Your task to perform on an android device: turn off airplane mode Image 0: 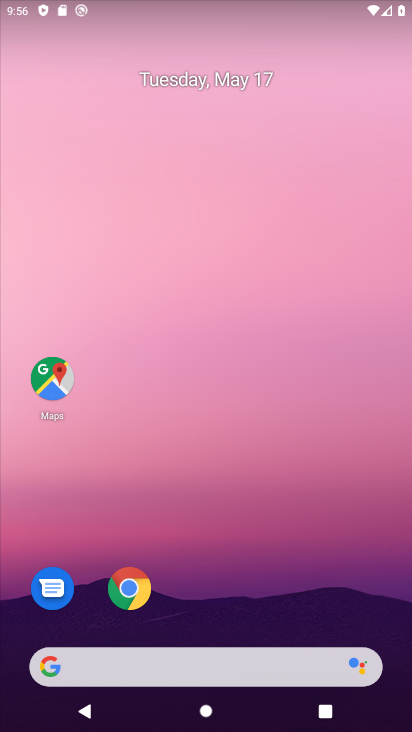
Step 0: drag from (225, 730) to (226, 120)
Your task to perform on an android device: turn off airplane mode Image 1: 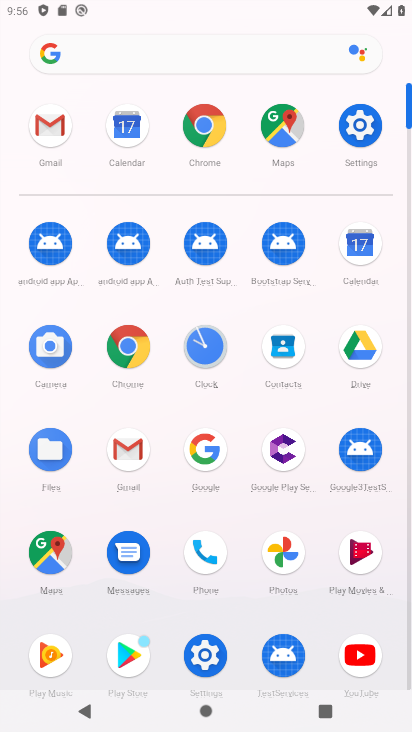
Step 1: click (355, 130)
Your task to perform on an android device: turn off airplane mode Image 2: 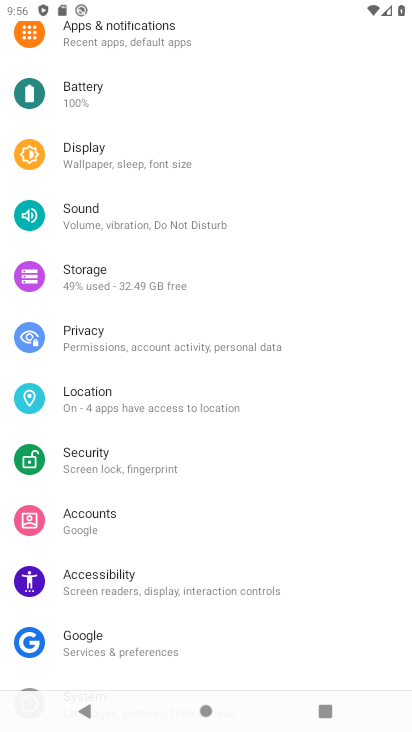
Step 2: drag from (135, 179) to (177, 460)
Your task to perform on an android device: turn off airplane mode Image 3: 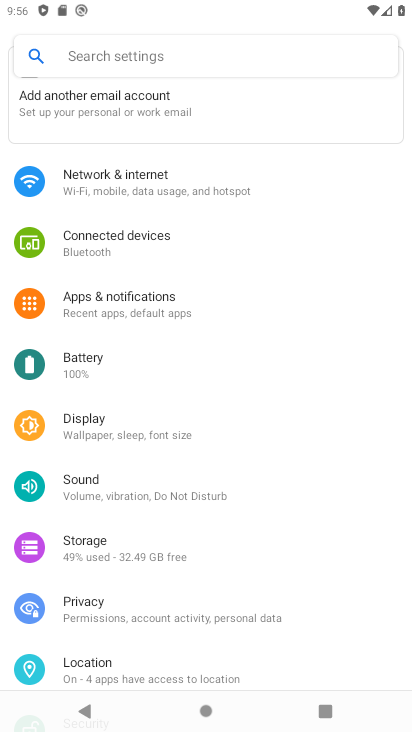
Step 3: click (110, 184)
Your task to perform on an android device: turn off airplane mode Image 4: 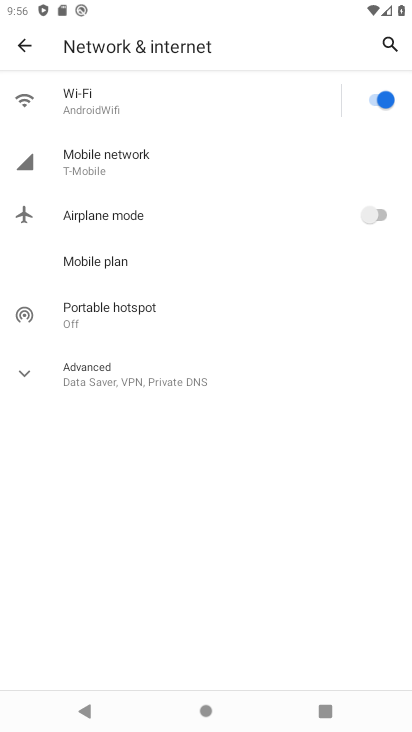
Step 4: task complete